Your task to perform on an android device: Search for Italian restaurants on Maps Image 0: 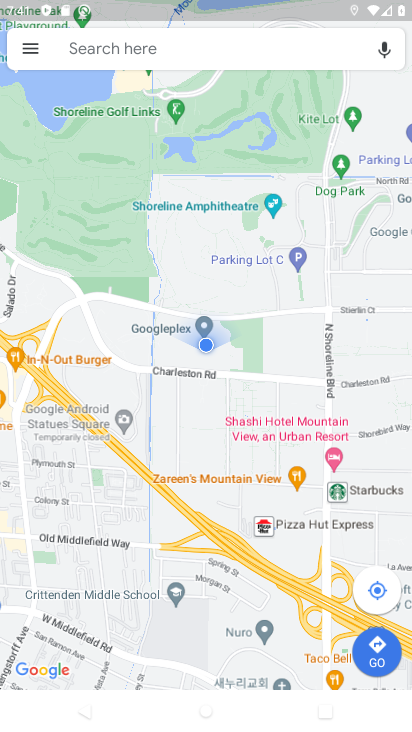
Step 0: click (233, 50)
Your task to perform on an android device: Search for Italian restaurants on Maps Image 1: 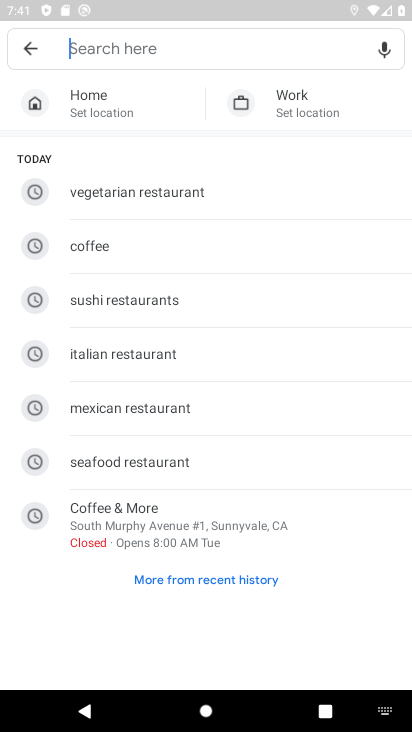
Step 1: click (166, 340)
Your task to perform on an android device: Search for Italian restaurants on Maps Image 2: 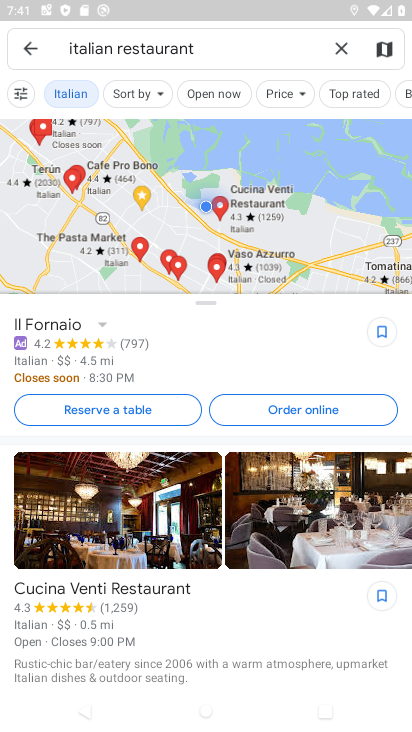
Step 2: task complete